Your task to perform on an android device: open the mobile data screen to see how much data has been used Image 0: 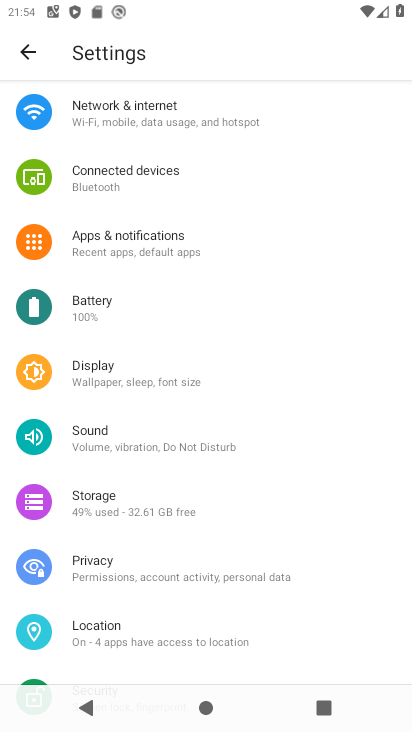
Step 0: press home button
Your task to perform on an android device: open the mobile data screen to see how much data has been used Image 1: 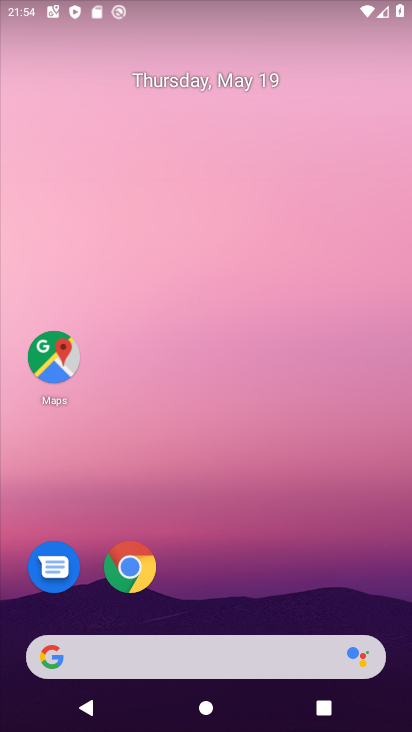
Step 1: drag from (211, 589) to (196, 156)
Your task to perform on an android device: open the mobile data screen to see how much data has been used Image 2: 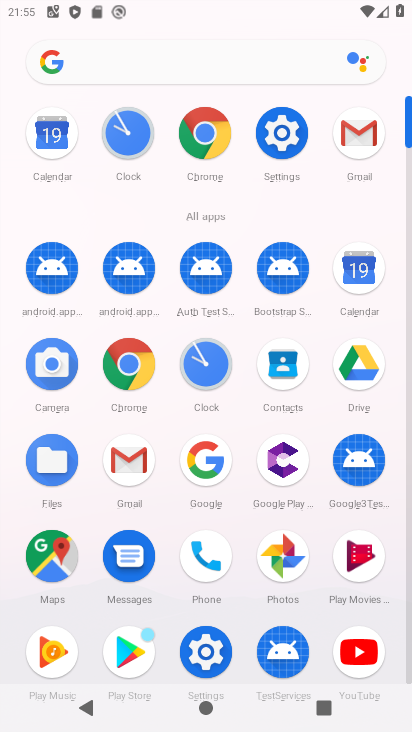
Step 2: click (292, 130)
Your task to perform on an android device: open the mobile data screen to see how much data has been used Image 3: 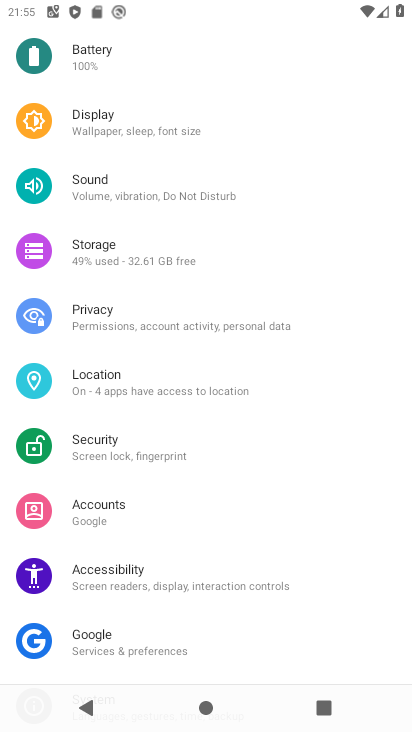
Step 3: drag from (102, 102) to (151, 532)
Your task to perform on an android device: open the mobile data screen to see how much data has been used Image 4: 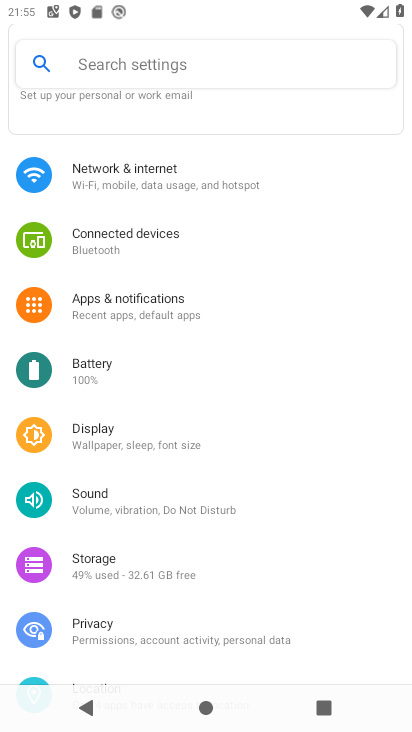
Step 4: click (139, 172)
Your task to perform on an android device: open the mobile data screen to see how much data has been used Image 5: 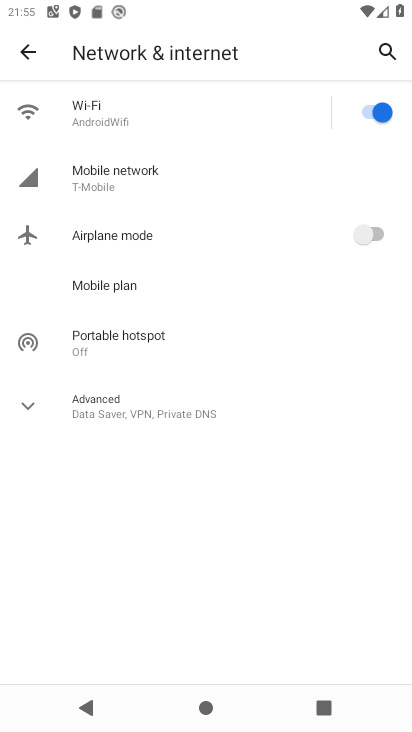
Step 5: click (129, 170)
Your task to perform on an android device: open the mobile data screen to see how much data has been used Image 6: 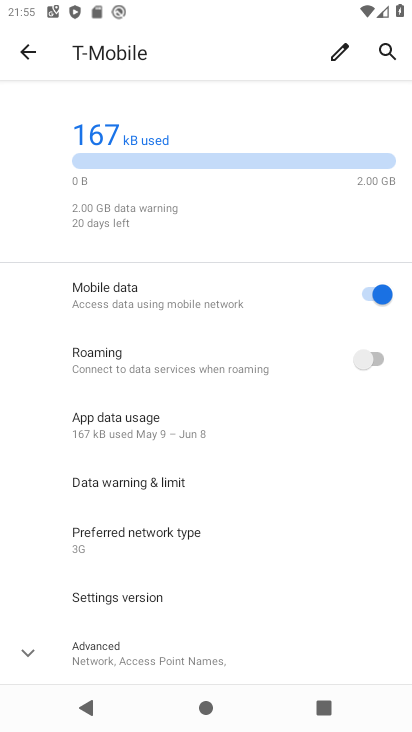
Step 6: click (164, 417)
Your task to perform on an android device: open the mobile data screen to see how much data has been used Image 7: 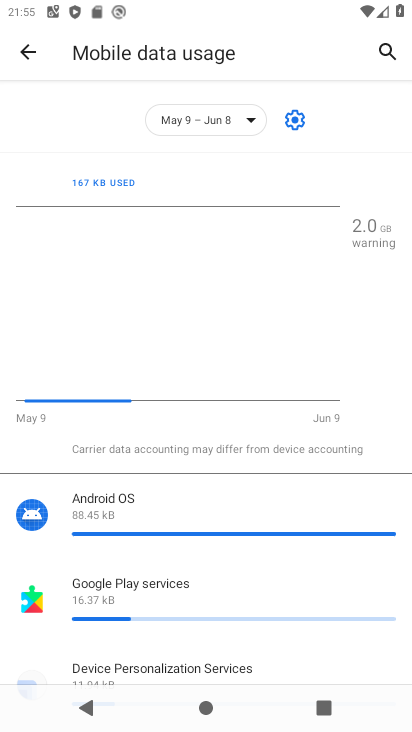
Step 7: task complete